Your task to perform on an android device: Go to calendar. Show me events next week Image 0: 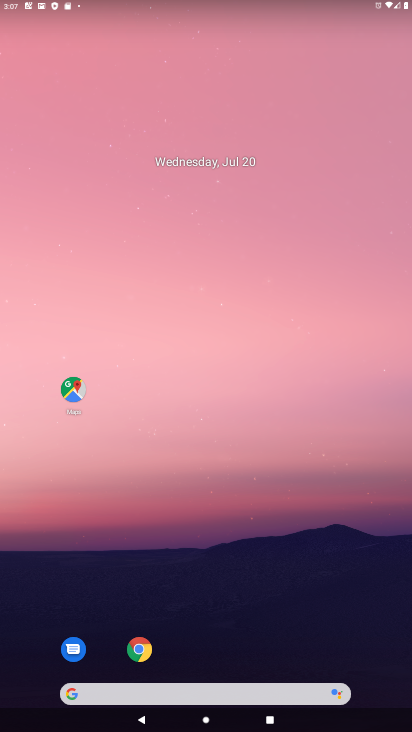
Step 0: drag from (156, 691) to (259, 190)
Your task to perform on an android device: Go to calendar. Show me events next week Image 1: 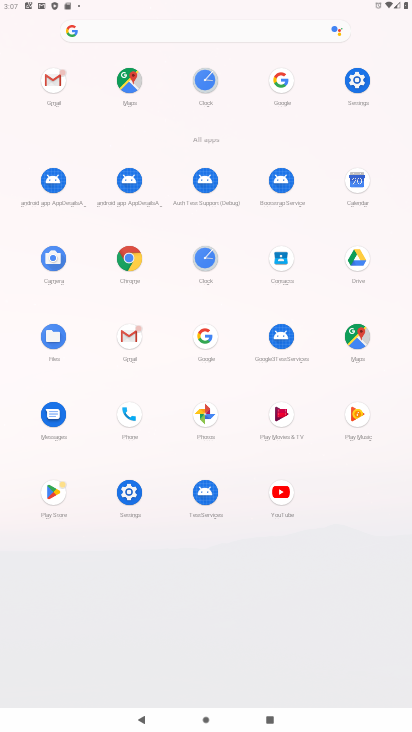
Step 1: click (358, 180)
Your task to perform on an android device: Go to calendar. Show me events next week Image 2: 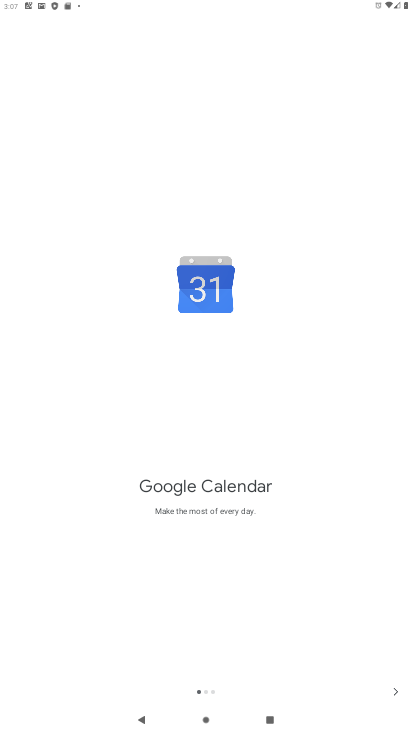
Step 2: click (395, 689)
Your task to perform on an android device: Go to calendar. Show me events next week Image 3: 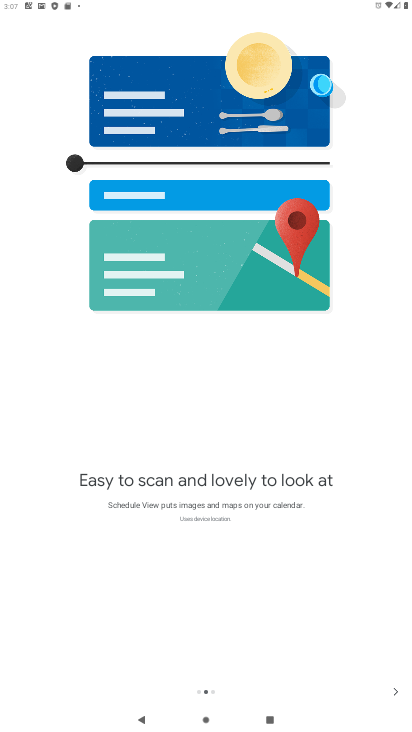
Step 3: click (395, 689)
Your task to perform on an android device: Go to calendar. Show me events next week Image 4: 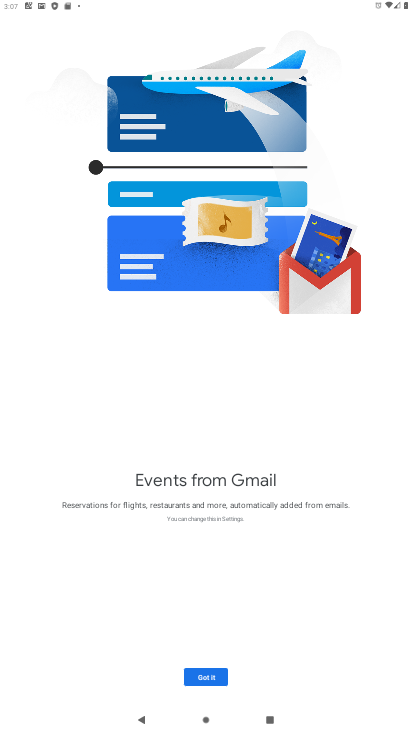
Step 4: click (207, 677)
Your task to perform on an android device: Go to calendar. Show me events next week Image 5: 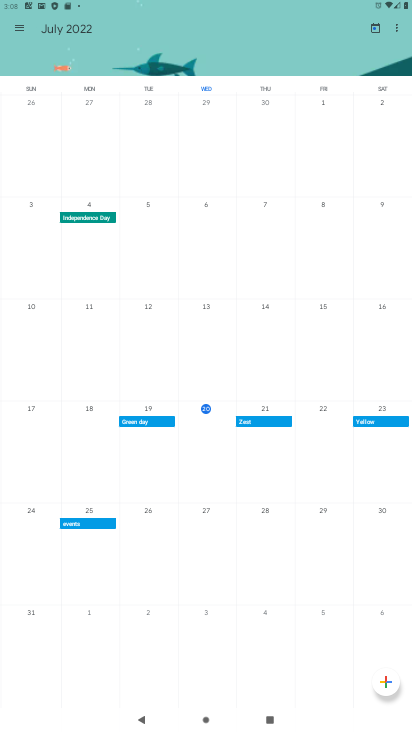
Step 5: click (92, 506)
Your task to perform on an android device: Go to calendar. Show me events next week Image 6: 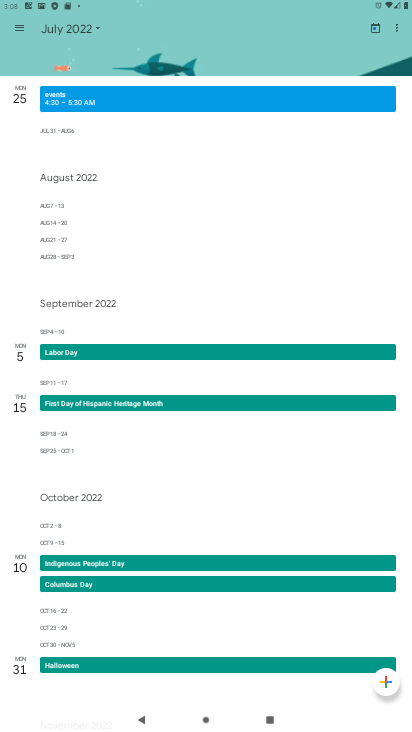
Step 6: task complete